Your task to perform on an android device: toggle sleep mode Image 0: 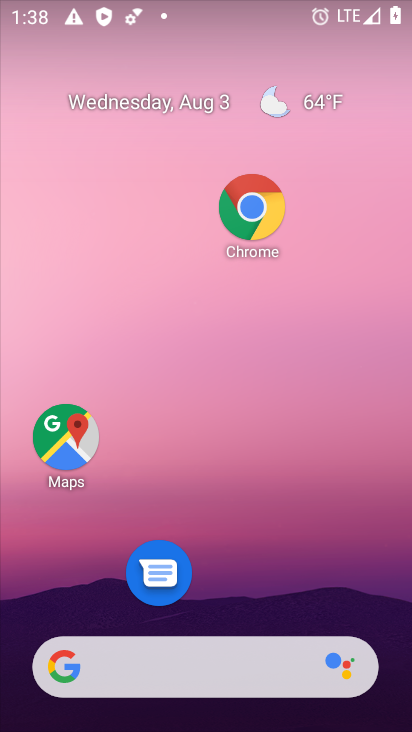
Step 0: drag from (214, 575) to (269, 188)
Your task to perform on an android device: toggle sleep mode Image 1: 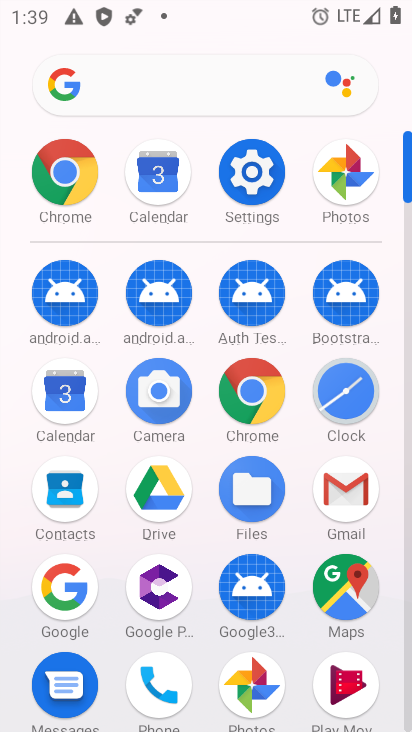
Step 1: click (254, 177)
Your task to perform on an android device: toggle sleep mode Image 2: 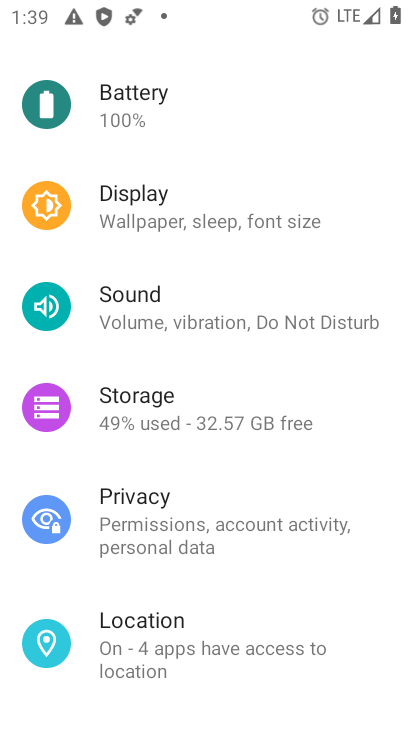
Step 2: drag from (244, 202) to (182, 203)
Your task to perform on an android device: toggle sleep mode Image 3: 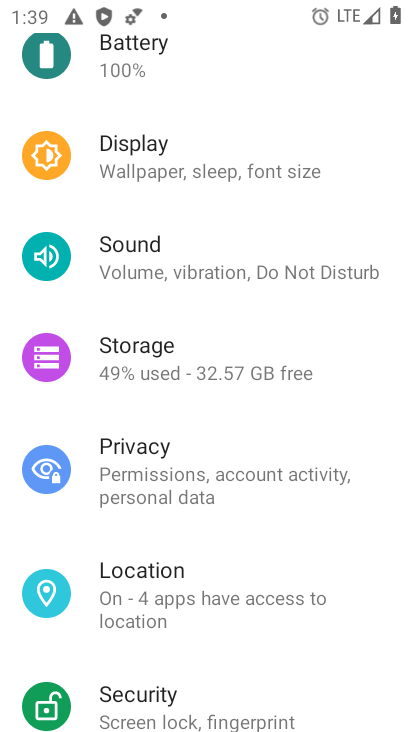
Step 3: click (183, 173)
Your task to perform on an android device: toggle sleep mode Image 4: 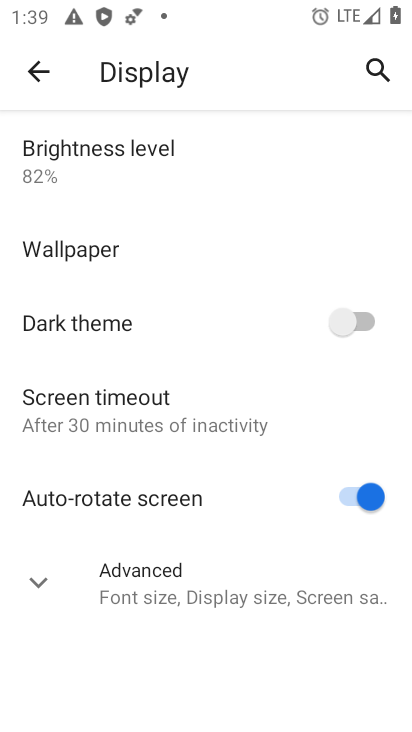
Step 4: click (131, 584)
Your task to perform on an android device: toggle sleep mode Image 5: 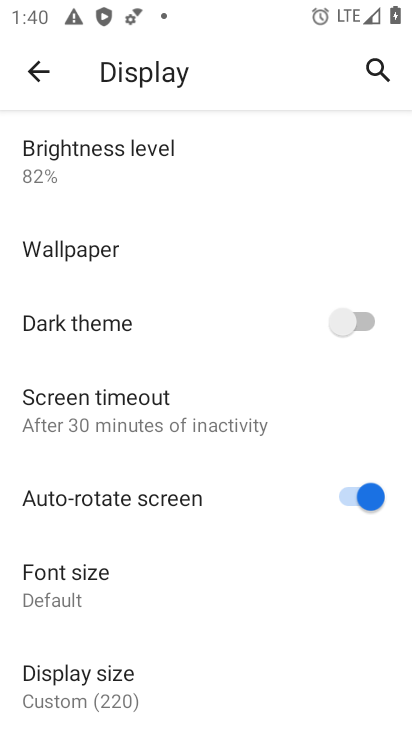
Step 5: task complete